Your task to perform on an android device: Set the phone to "Do not disturb". Image 0: 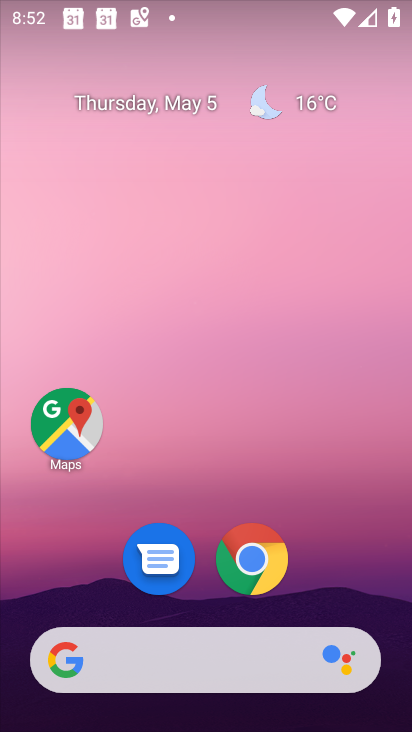
Step 0: drag from (339, 588) to (330, 8)
Your task to perform on an android device: Set the phone to "Do not disturb". Image 1: 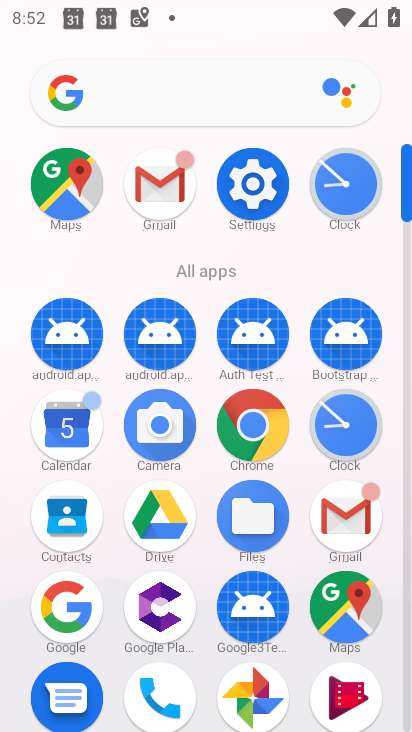
Step 1: click (254, 179)
Your task to perform on an android device: Set the phone to "Do not disturb". Image 2: 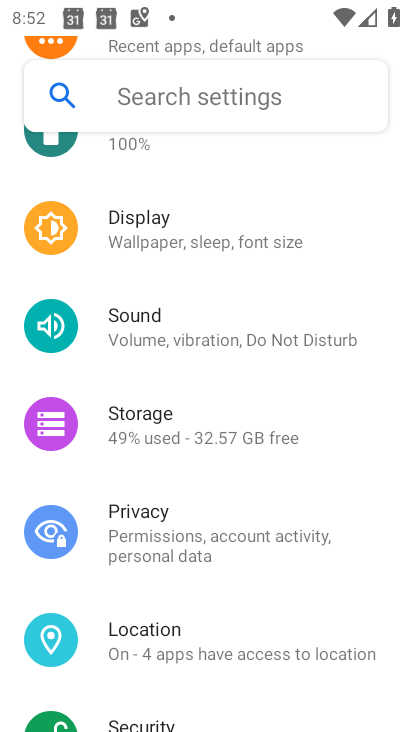
Step 2: click (183, 346)
Your task to perform on an android device: Set the phone to "Do not disturb". Image 3: 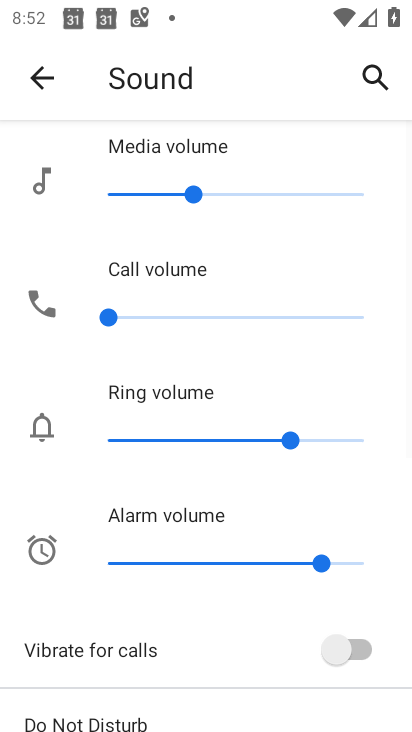
Step 3: drag from (198, 558) to (186, 177)
Your task to perform on an android device: Set the phone to "Do not disturb". Image 4: 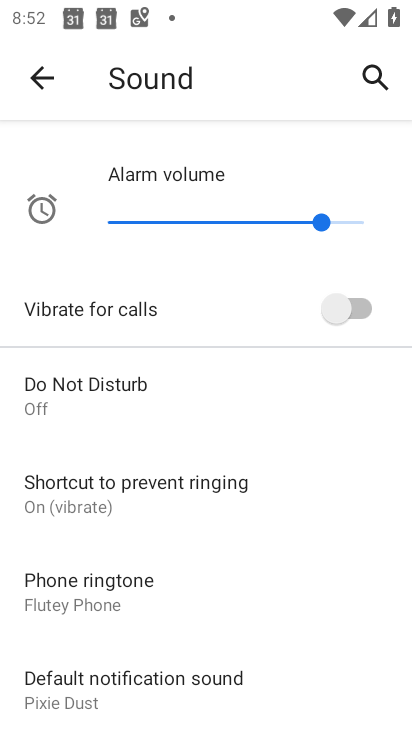
Step 4: click (76, 385)
Your task to perform on an android device: Set the phone to "Do not disturb". Image 5: 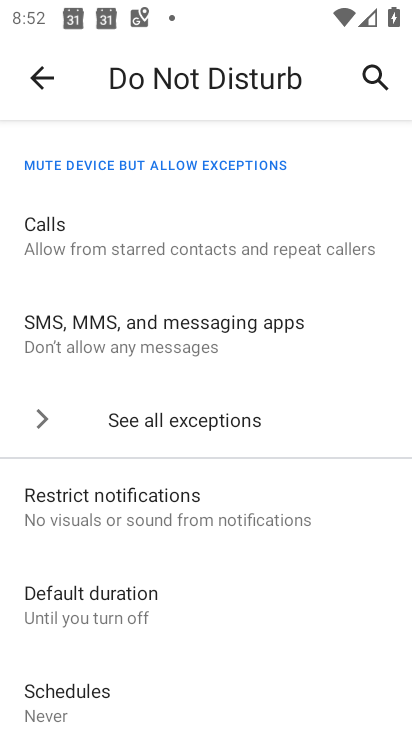
Step 5: drag from (277, 520) to (282, 110)
Your task to perform on an android device: Set the phone to "Do not disturb". Image 6: 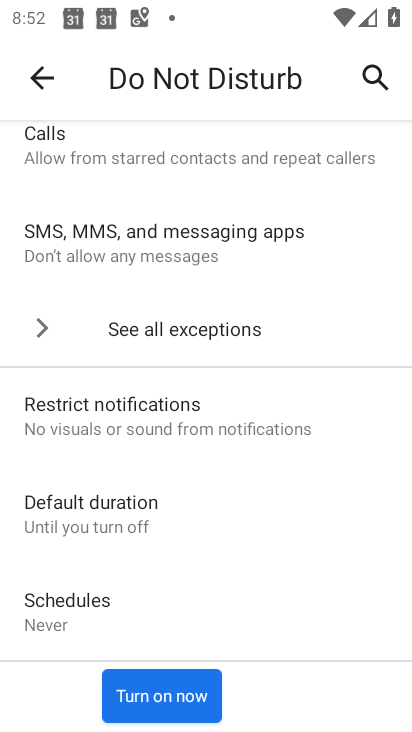
Step 6: click (148, 681)
Your task to perform on an android device: Set the phone to "Do not disturb". Image 7: 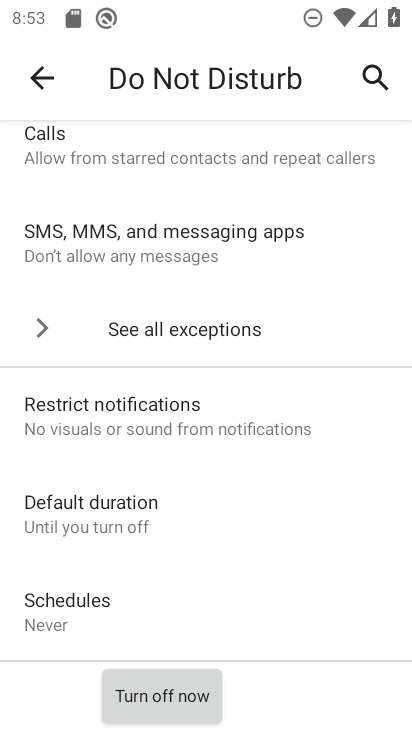
Step 7: task complete